Your task to perform on an android device: What's the weather? Image 0: 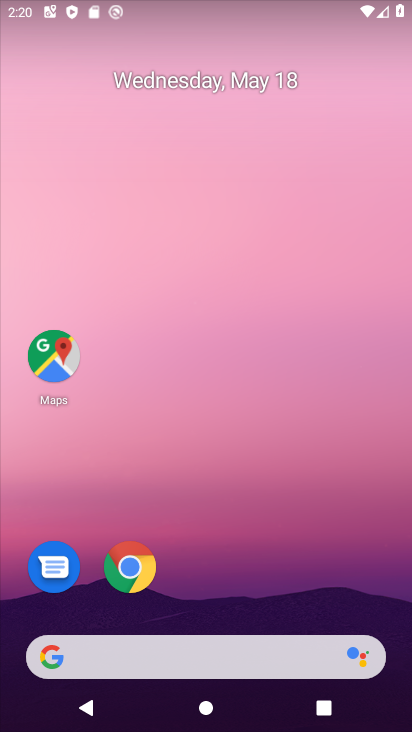
Step 0: click (128, 574)
Your task to perform on an android device: What's the weather? Image 1: 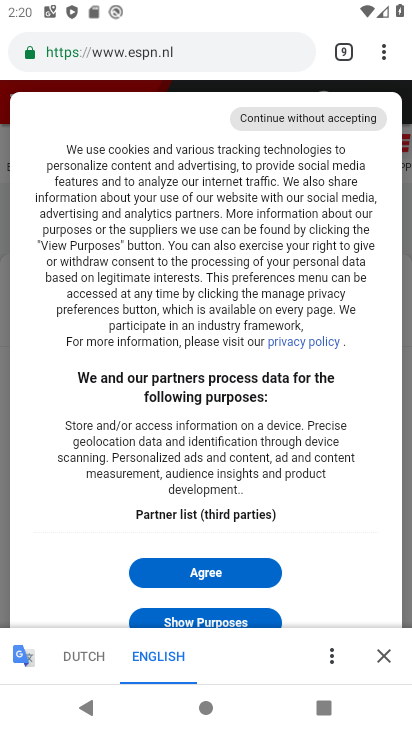
Step 1: click (122, 566)
Your task to perform on an android device: What's the weather? Image 2: 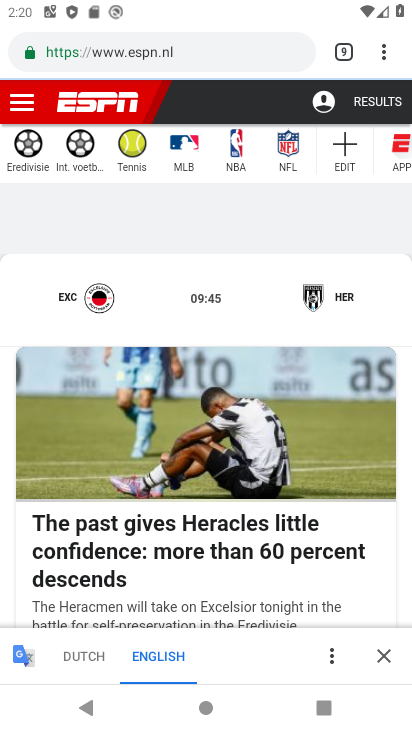
Step 2: click (368, 51)
Your task to perform on an android device: What's the weather? Image 3: 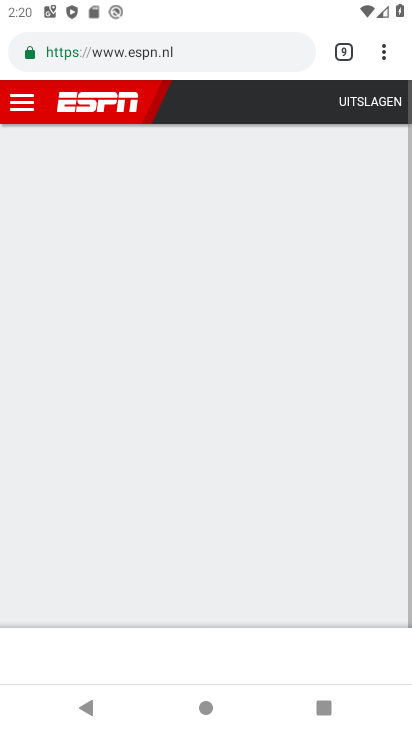
Step 3: click (380, 52)
Your task to perform on an android device: What's the weather? Image 4: 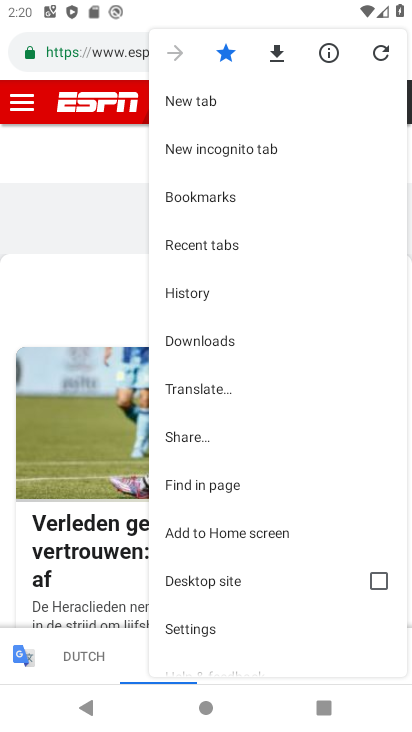
Step 4: click (219, 111)
Your task to perform on an android device: What's the weather? Image 5: 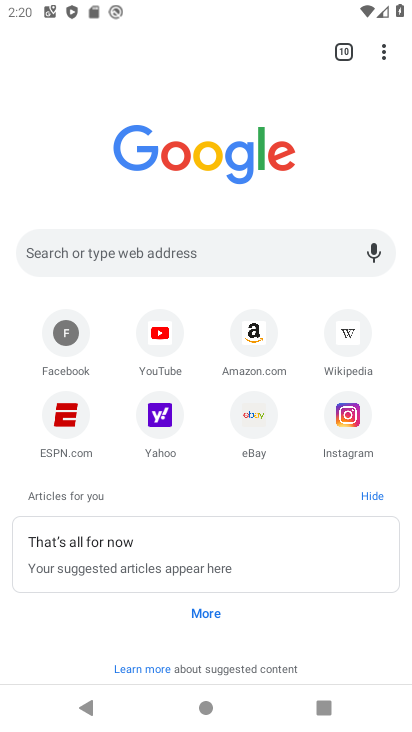
Step 5: click (189, 244)
Your task to perform on an android device: What's the weather? Image 6: 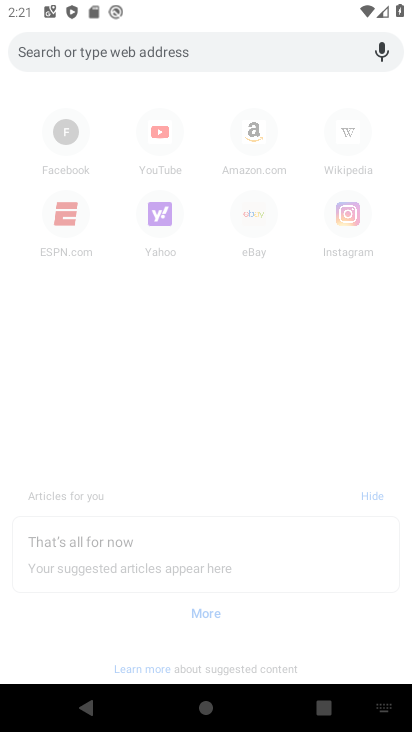
Step 6: type "What's the weather?"
Your task to perform on an android device: What's the weather? Image 7: 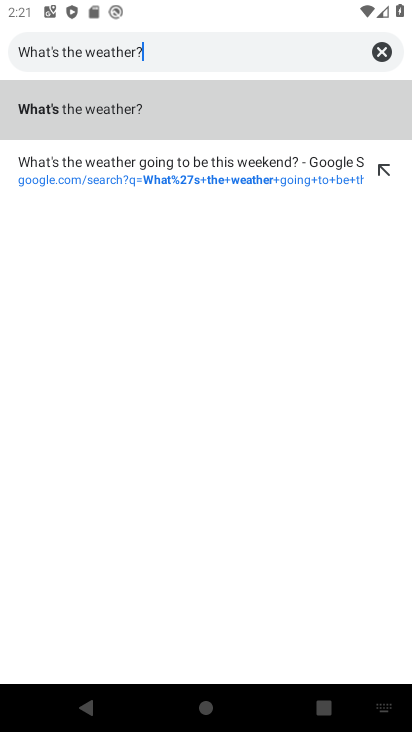
Step 7: click (183, 99)
Your task to perform on an android device: What's the weather? Image 8: 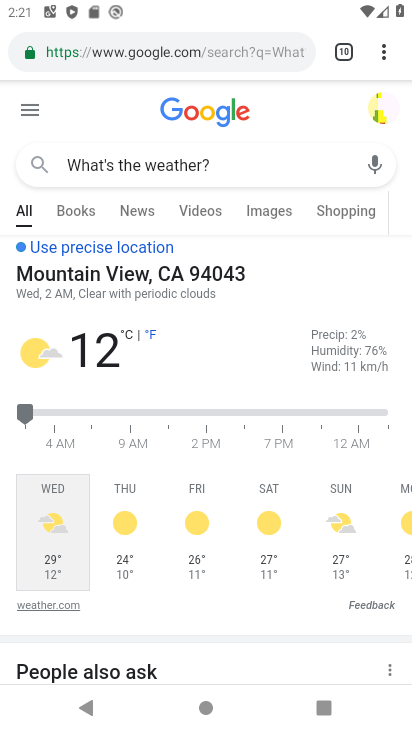
Step 8: task complete